Your task to perform on an android device: open chrome privacy settings Image 0: 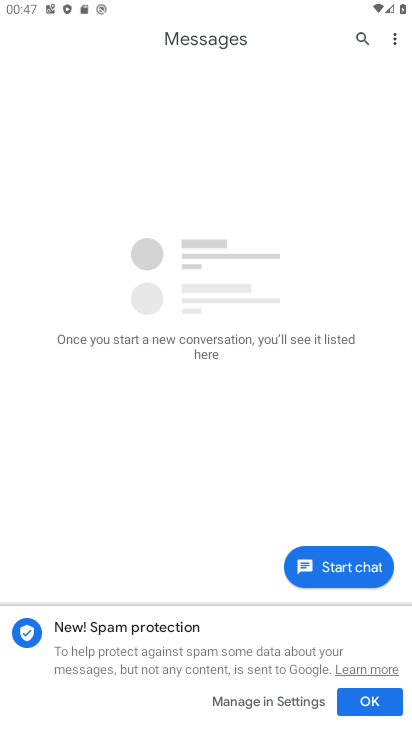
Step 0: press home button
Your task to perform on an android device: open chrome privacy settings Image 1: 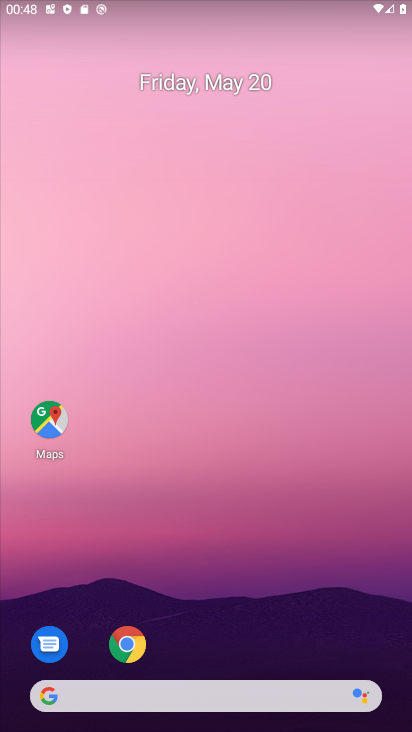
Step 1: click (130, 652)
Your task to perform on an android device: open chrome privacy settings Image 2: 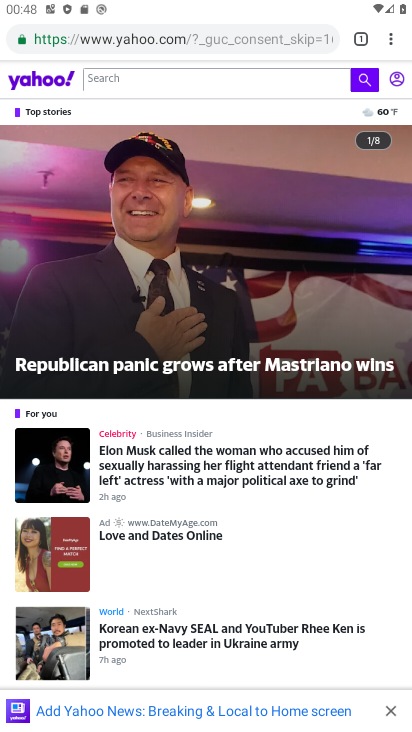
Step 2: click (390, 40)
Your task to perform on an android device: open chrome privacy settings Image 3: 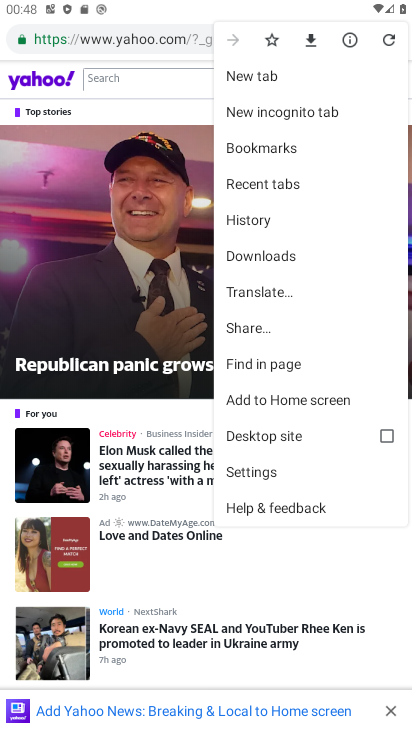
Step 3: click (257, 473)
Your task to perform on an android device: open chrome privacy settings Image 4: 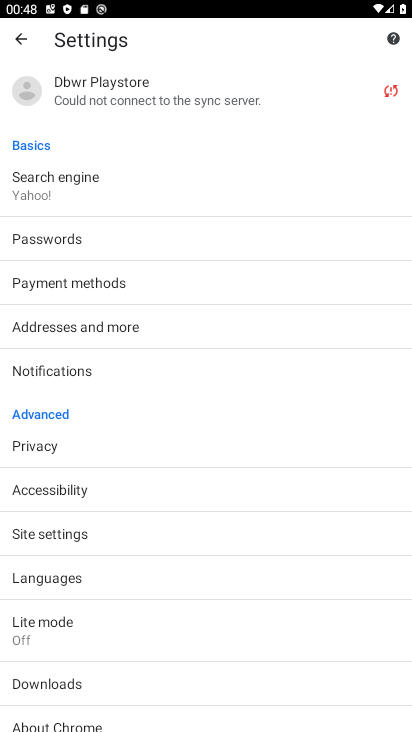
Step 4: click (47, 445)
Your task to perform on an android device: open chrome privacy settings Image 5: 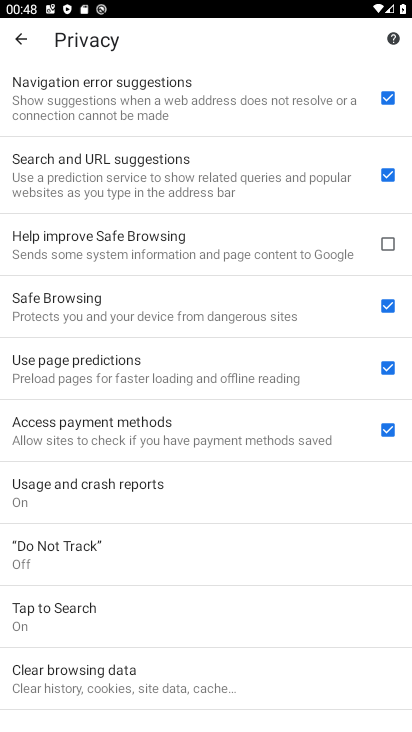
Step 5: task complete